Your task to perform on an android device: Open calendar and show me the third week of next month Image 0: 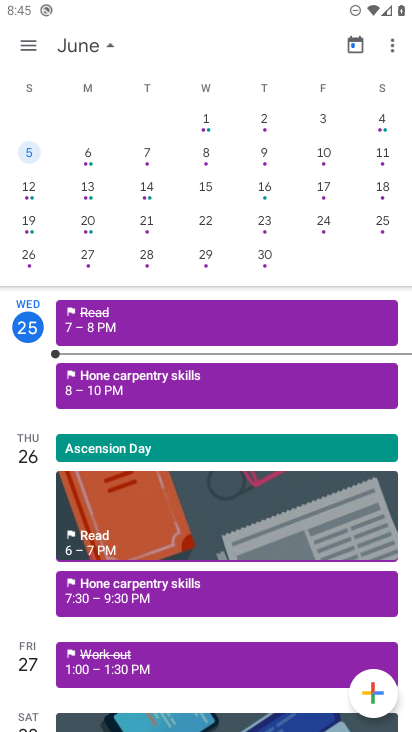
Step 0: press home button
Your task to perform on an android device: Open calendar and show me the third week of next month Image 1: 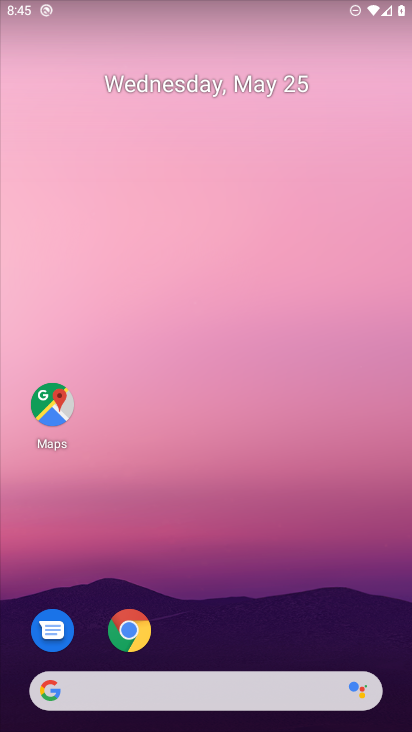
Step 1: drag from (196, 666) to (246, 251)
Your task to perform on an android device: Open calendar and show me the third week of next month Image 2: 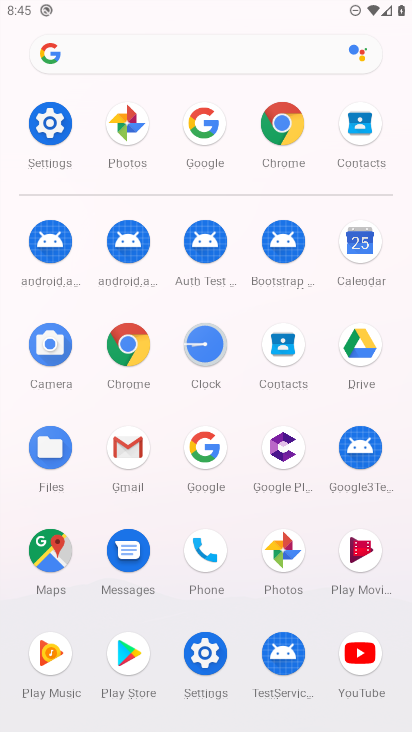
Step 2: click (365, 248)
Your task to perform on an android device: Open calendar and show me the third week of next month Image 3: 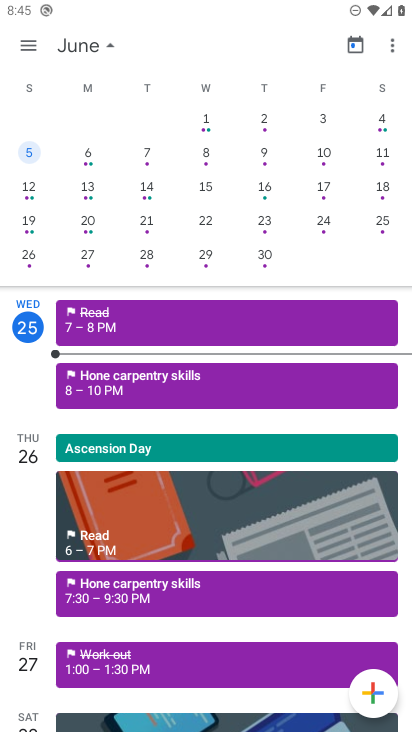
Step 3: click (26, 187)
Your task to perform on an android device: Open calendar and show me the third week of next month Image 4: 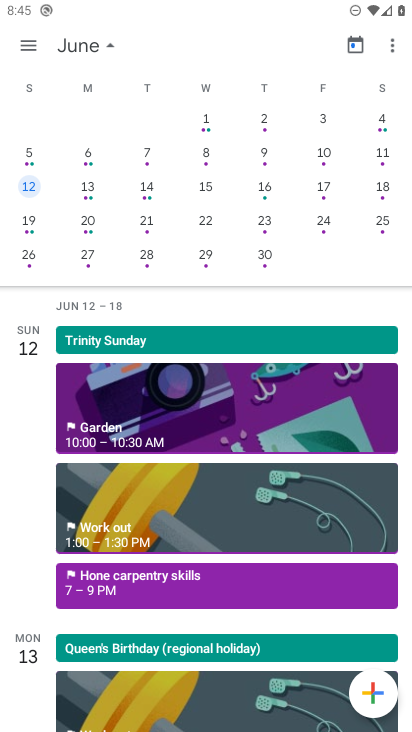
Step 4: task complete